Your task to perform on an android device: install app "Facebook" Image 0: 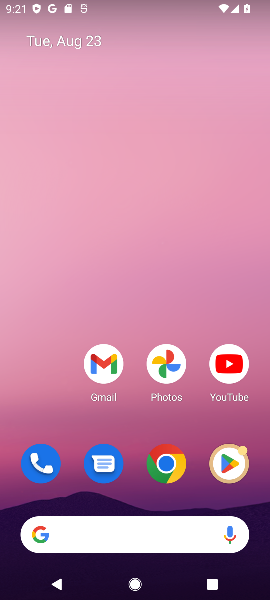
Step 0: press home button
Your task to perform on an android device: install app "Facebook" Image 1: 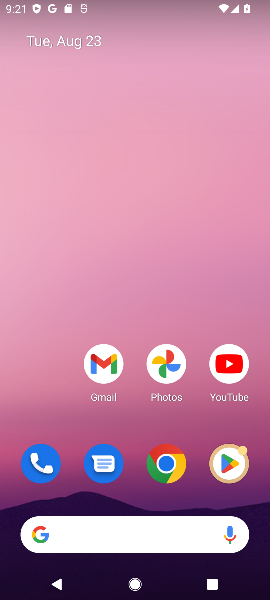
Step 1: click (229, 462)
Your task to perform on an android device: install app "Facebook" Image 2: 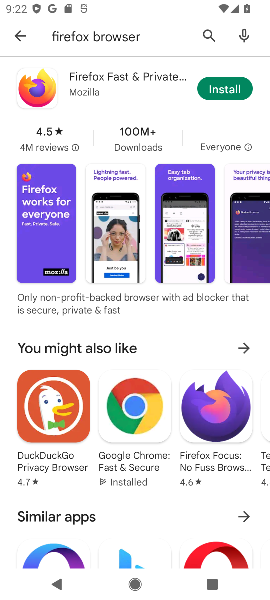
Step 2: click (204, 33)
Your task to perform on an android device: install app "Facebook" Image 3: 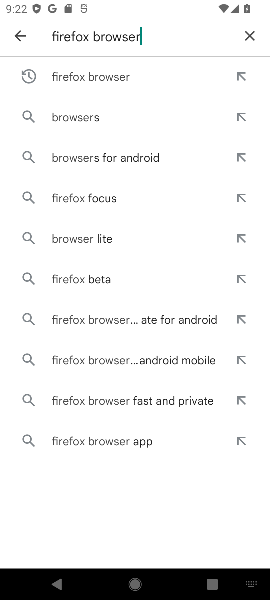
Step 3: click (249, 40)
Your task to perform on an android device: install app "Facebook" Image 4: 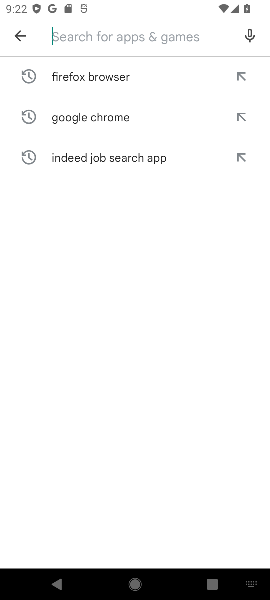
Step 4: type "Facebook"
Your task to perform on an android device: install app "Facebook" Image 5: 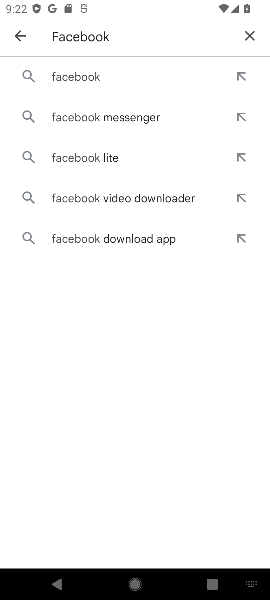
Step 5: click (83, 83)
Your task to perform on an android device: install app "Facebook" Image 6: 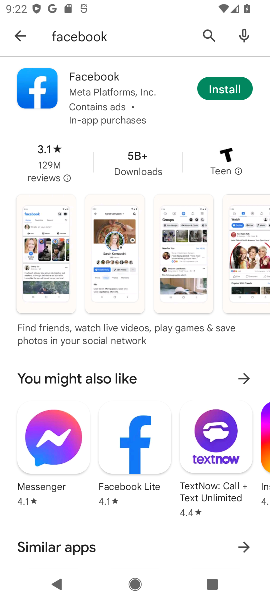
Step 6: click (224, 89)
Your task to perform on an android device: install app "Facebook" Image 7: 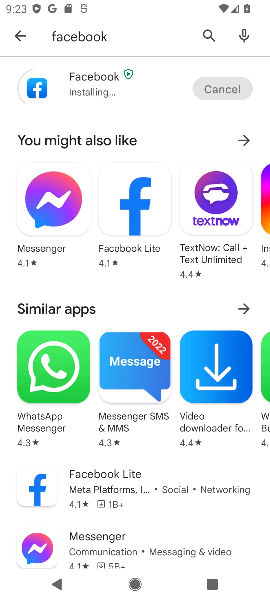
Step 7: click (203, 72)
Your task to perform on an android device: install app "Facebook" Image 8: 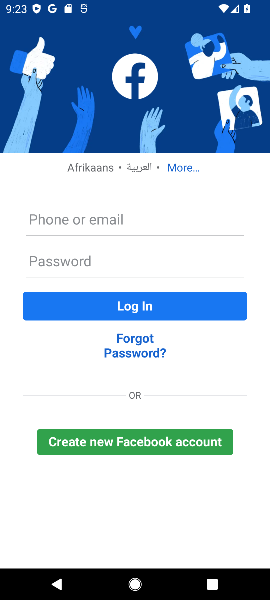
Step 8: task complete